Your task to perform on an android device: Check the news Image 0: 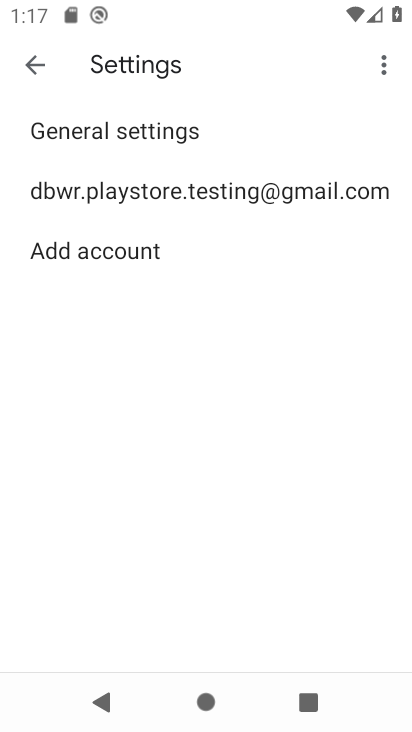
Step 0: press home button
Your task to perform on an android device: Check the news Image 1: 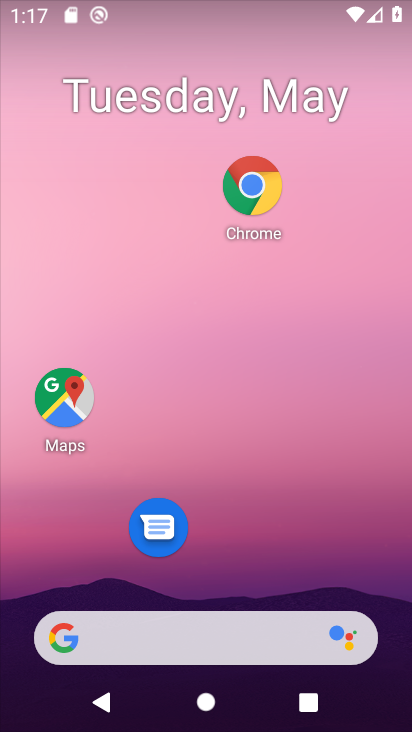
Step 1: drag from (6, 253) to (305, 368)
Your task to perform on an android device: Check the news Image 2: 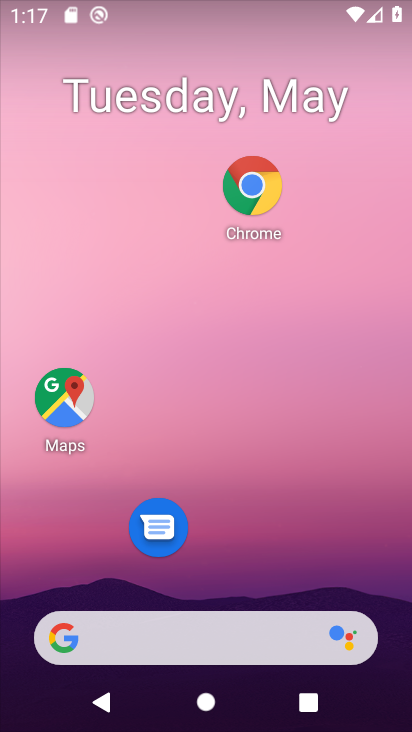
Step 2: click (166, 629)
Your task to perform on an android device: Check the news Image 3: 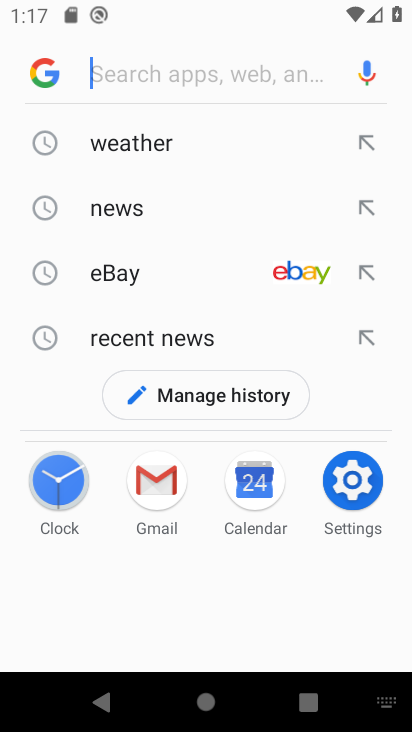
Step 3: click (126, 211)
Your task to perform on an android device: Check the news Image 4: 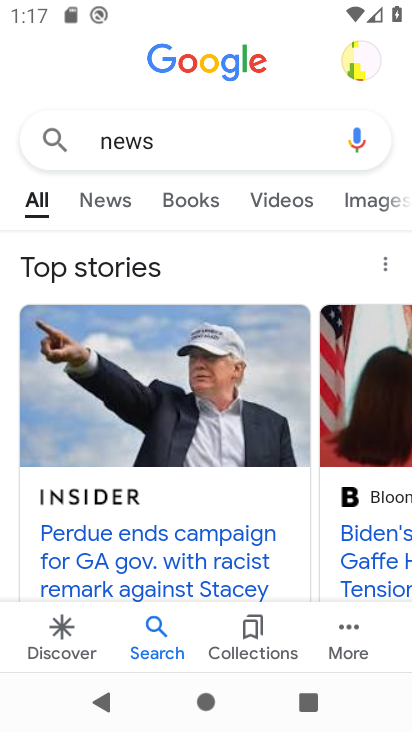
Step 4: task complete